Your task to perform on an android device: check data usage Image 0: 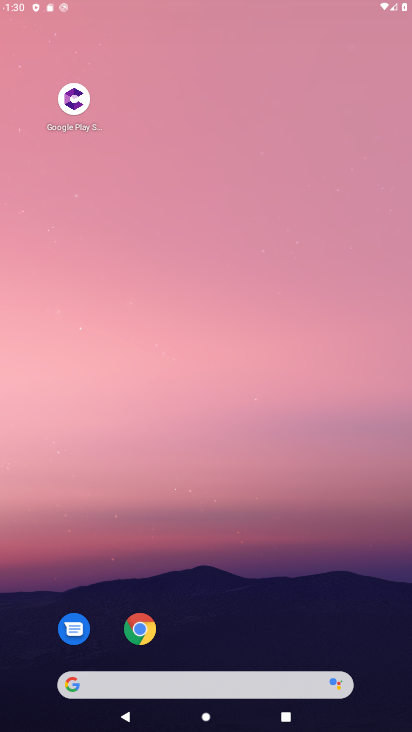
Step 0: press home button
Your task to perform on an android device: check data usage Image 1: 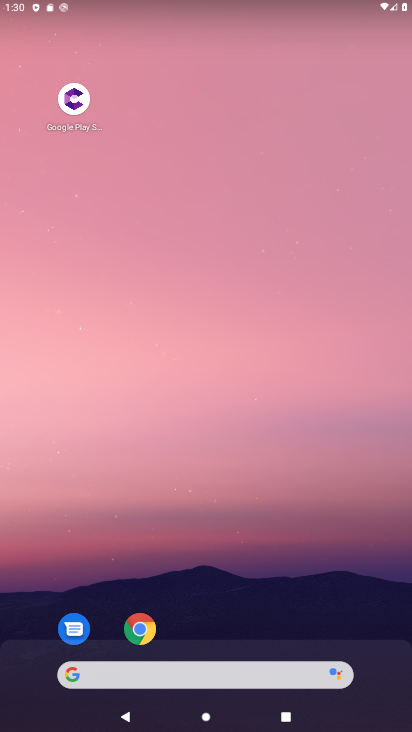
Step 1: drag from (237, 593) to (216, 40)
Your task to perform on an android device: check data usage Image 2: 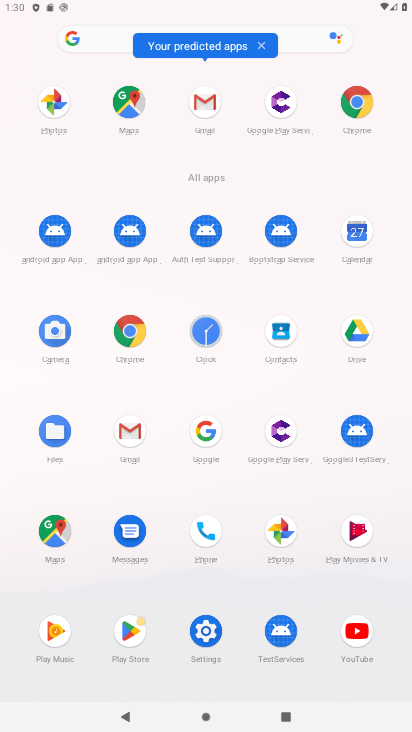
Step 2: click (208, 629)
Your task to perform on an android device: check data usage Image 3: 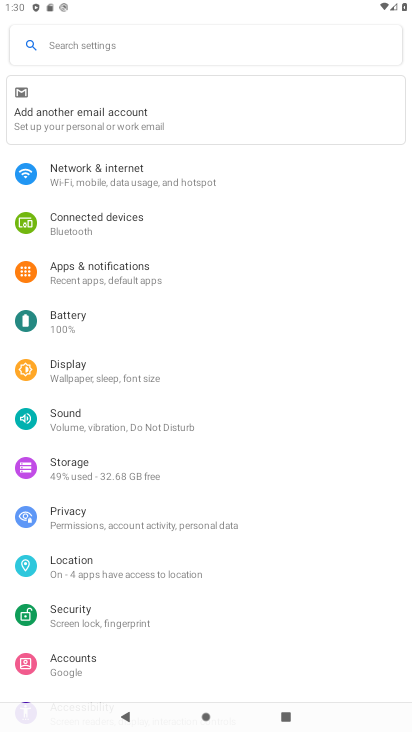
Step 3: click (80, 180)
Your task to perform on an android device: check data usage Image 4: 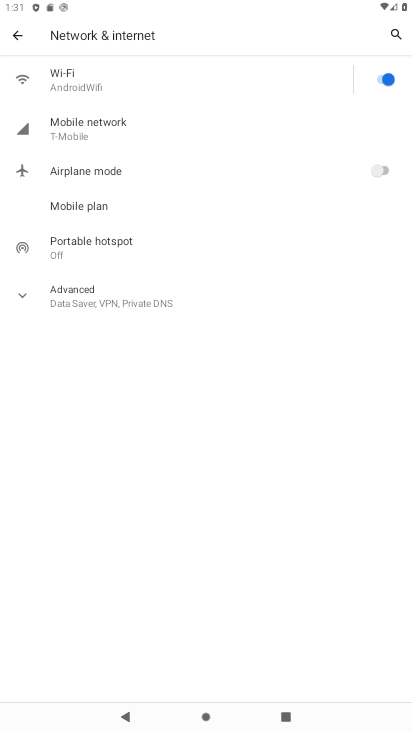
Step 4: click (66, 127)
Your task to perform on an android device: check data usage Image 5: 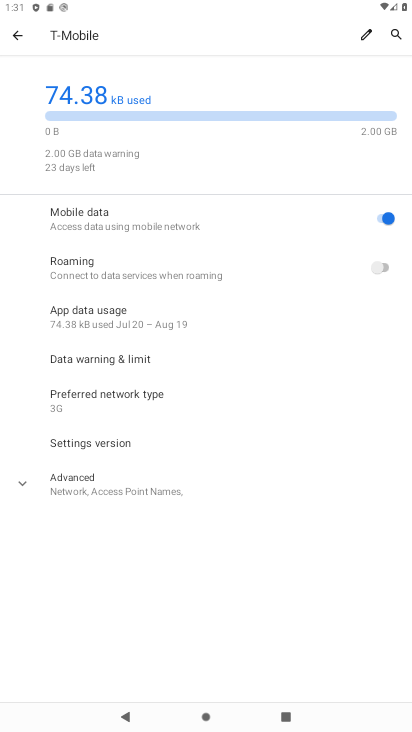
Step 5: click (146, 326)
Your task to perform on an android device: check data usage Image 6: 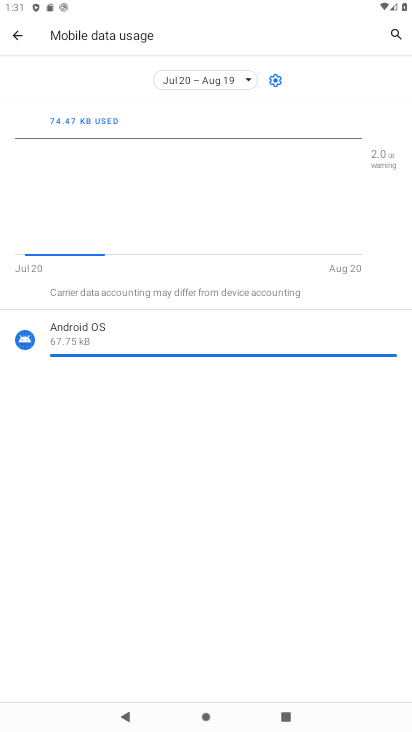
Step 6: task complete